Your task to perform on an android device: When is my next appointment? Image 0: 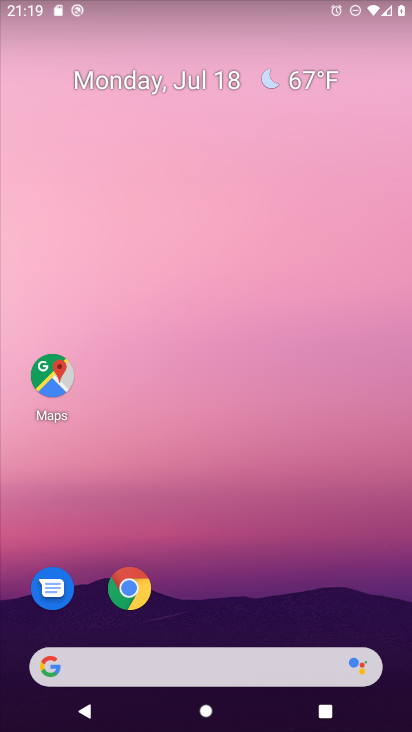
Step 0: drag from (402, 638) to (369, 219)
Your task to perform on an android device: When is my next appointment? Image 1: 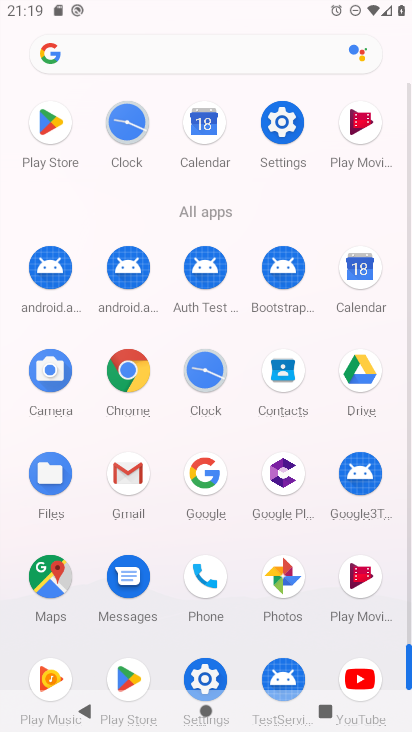
Step 1: click (360, 276)
Your task to perform on an android device: When is my next appointment? Image 2: 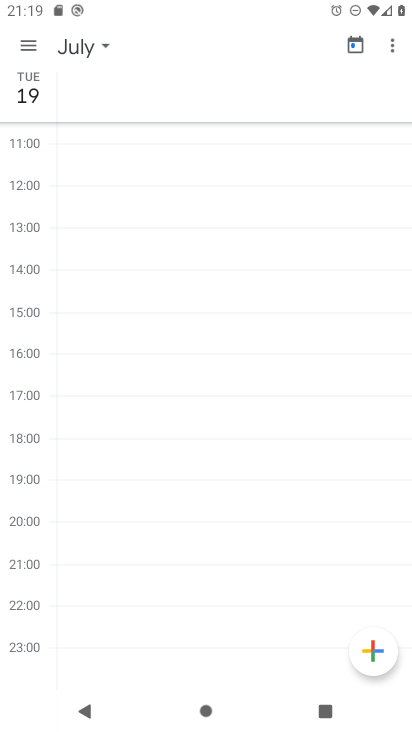
Step 2: click (29, 46)
Your task to perform on an android device: When is my next appointment? Image 3: 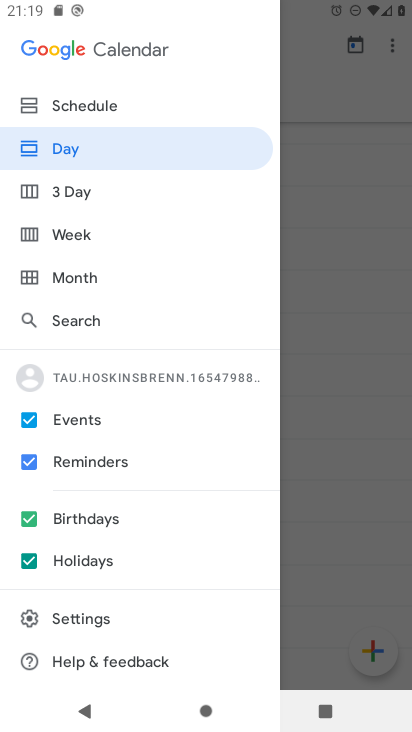
Step 3: click (83, 104)
Your task to perform on an android device: When is my next appointment? Image 4: 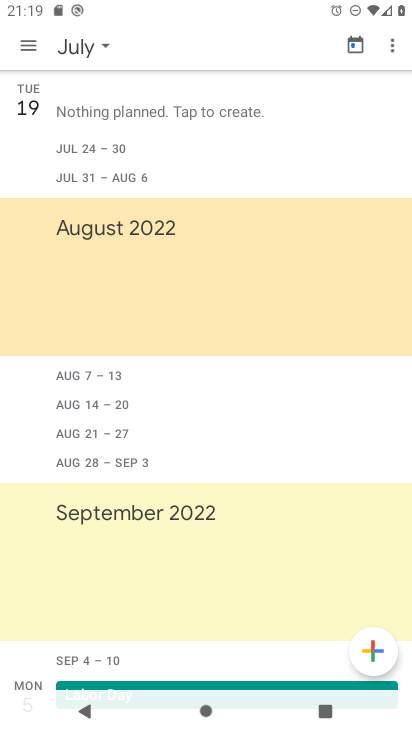
Step 4: task complete